Your task to perform on an android device: check data usage Image 0: 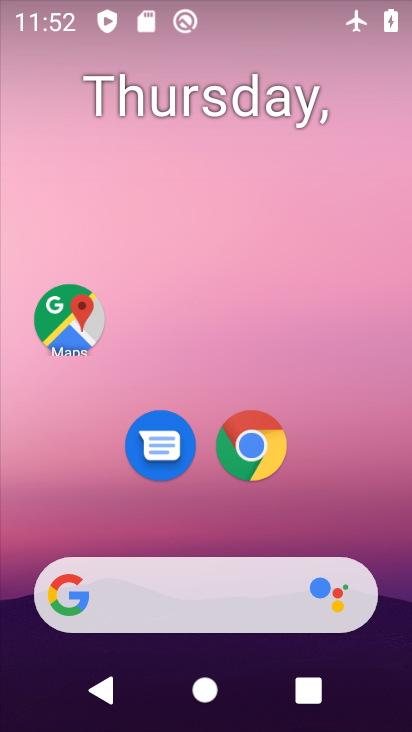
Step 0: drag from (338, 468) to (219, 109)
Your task to perform on an android device: check data usage Image 1: 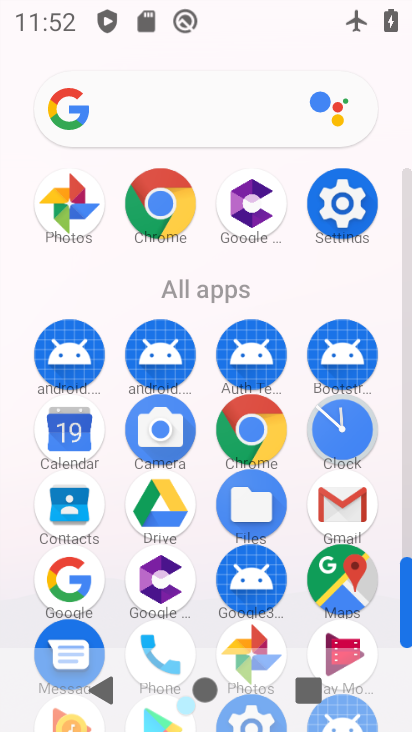
Step 1: click (356, 211)
Your task to perform on an android device: check data usage Image 2: 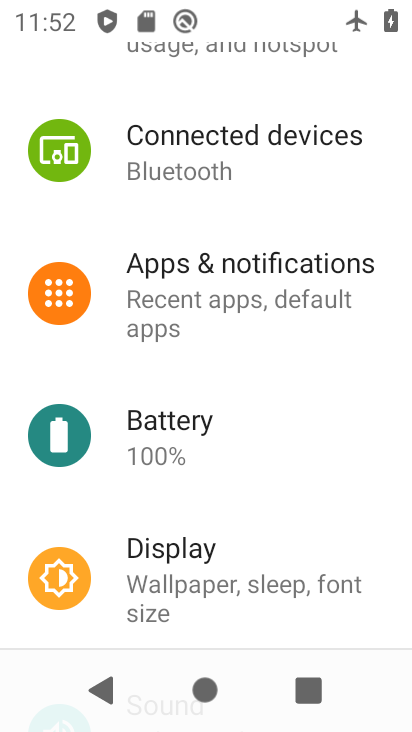
Step 2: drag from (250, 203) to (267, 628)
Your task to perform on an android device: check data usage Image 3: 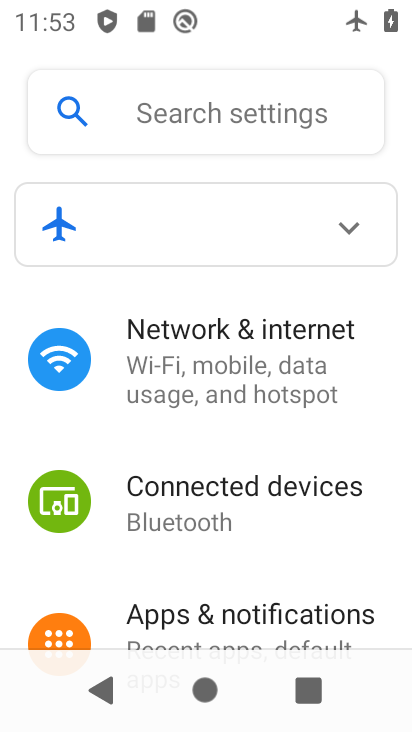
Step 3: click (239, 346)
Your task to perform on an android device: check data usage Image 4: 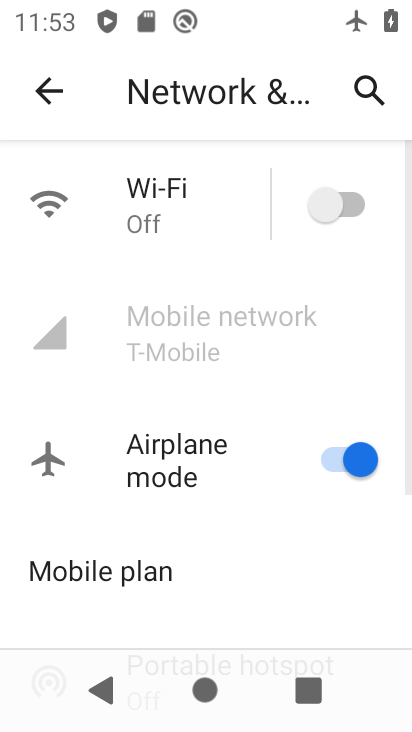
Step 4: drag from (252, 593) to (215, 138)
Your task to perform on an android device: check data usage Image 5: 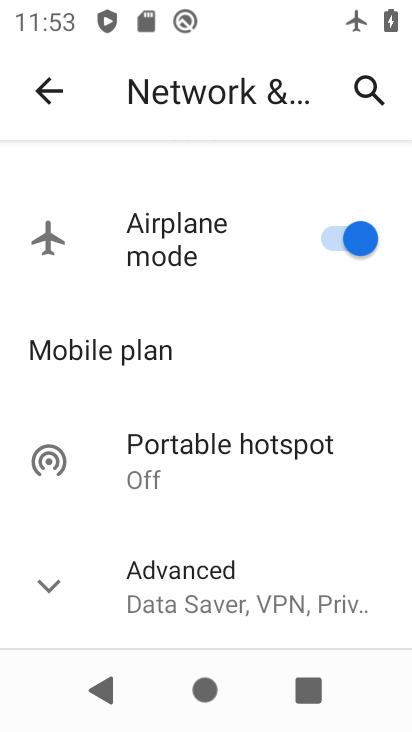
Step 5: click (215, 138)
Your task to perform on an android device: check data usage Image 6: 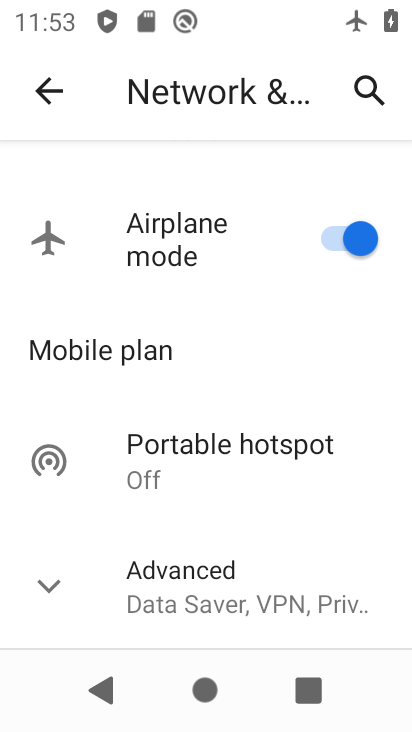
Step 6: drag from (215, 138) to (296, 675)
Your task to perform on an android device: check data usage Image 7: 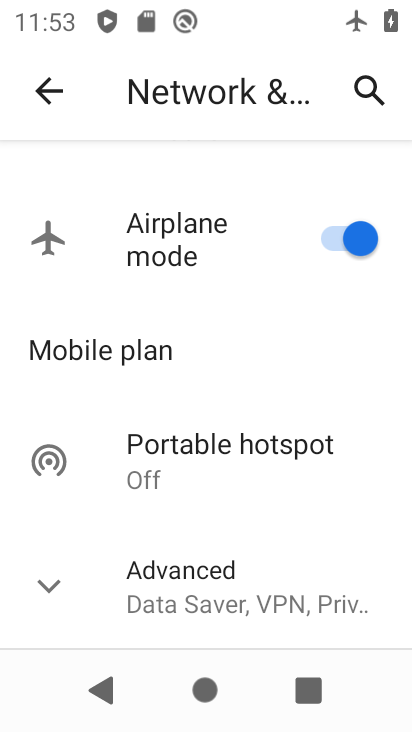
Step 7: drag from (246, 148) to (277, 702)
Your task to perform on an android device: check data usage Image 8: 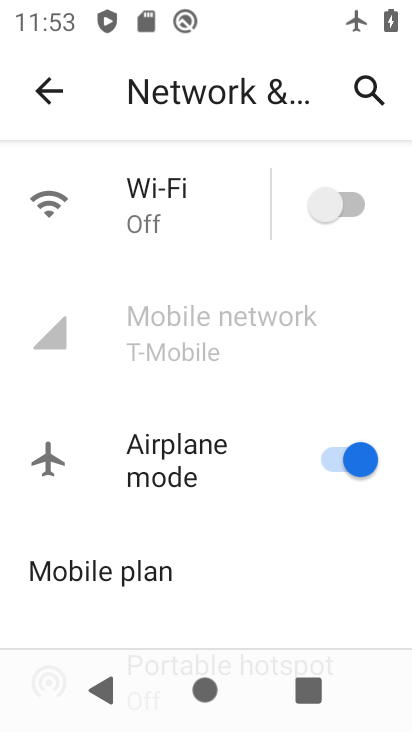
Step 8: click (166, 226)
Your task to perform on an android device: check data usage Image 9: 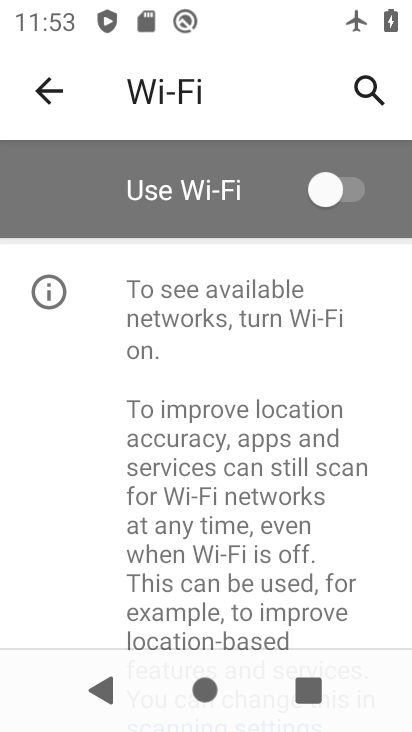
Step 9: drag from (242, 585) to (169, 183)
Your task to perform on an android device: check data usage Image 10: 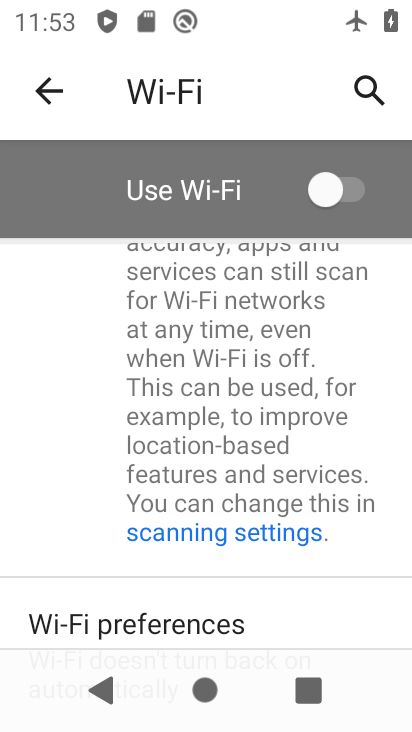
Step 10: drag from (212, 531) to (223, 155)
Your task to perform on an android device: check data usage Image 11: 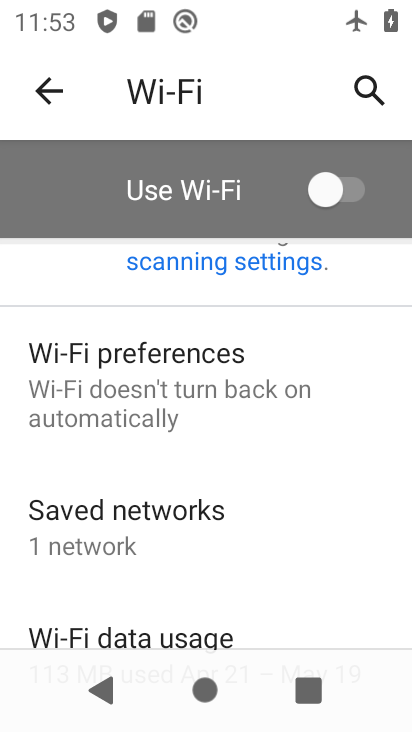
Step 11: drag from (249, 590) to (252, 318)
Your task to perform on an android device: check data usage Image 12: 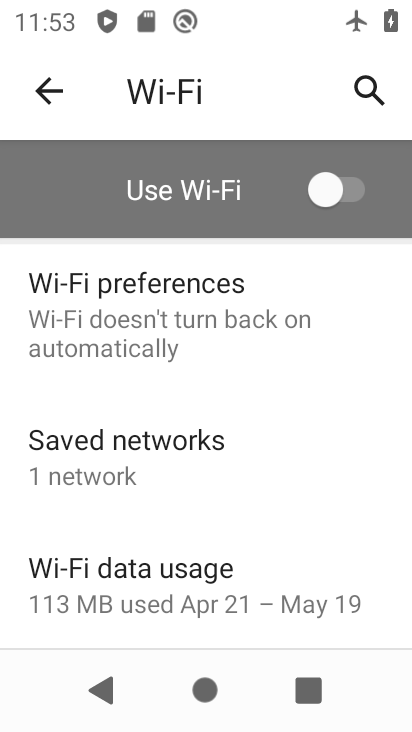
Step 12: click (274, 570)
Your task to perform on an android device: check data usage Image 13: 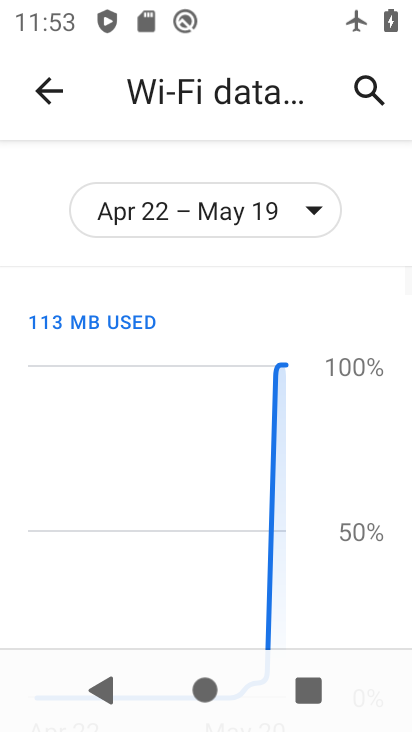
Step 13: task complete